Your task to perform on an android device: change notification settings in the gmail app Image 0: 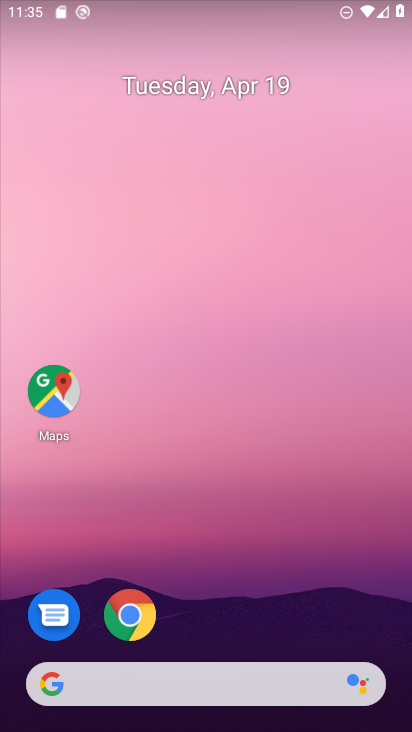
Step 0: drag from (205, 636) to (249, 335)
Your task to perform on an android device: change notification settings in the gmail app Image 1: 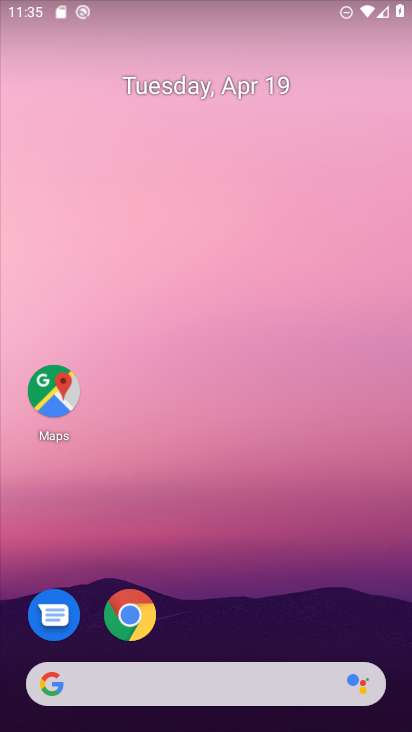
Step 1: drag from (263, 665) to (196, 296)
Your task to perform on an android device: change notification settings in the gmail app Image 2: 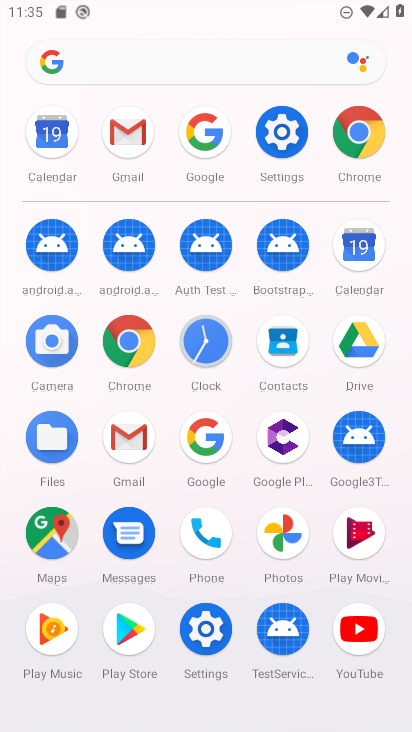
Step 2: click (124, 147)
Your task to perform on an android device: change notification settings in the gmail app Image 3: 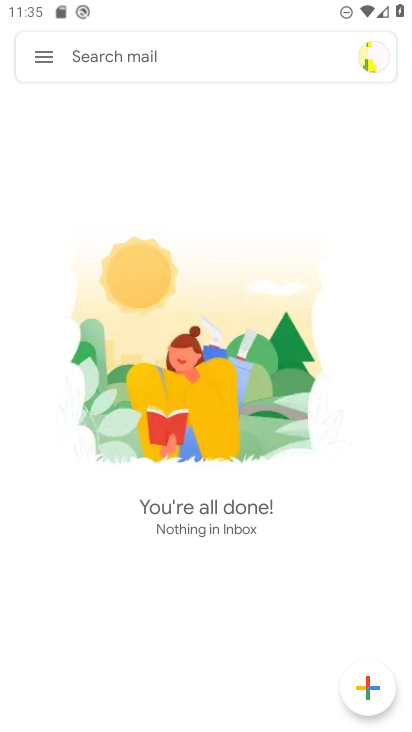
Step 3: click (43, 58)
Your task to perform on an android device: change notification settings in the gmail app Image 4: 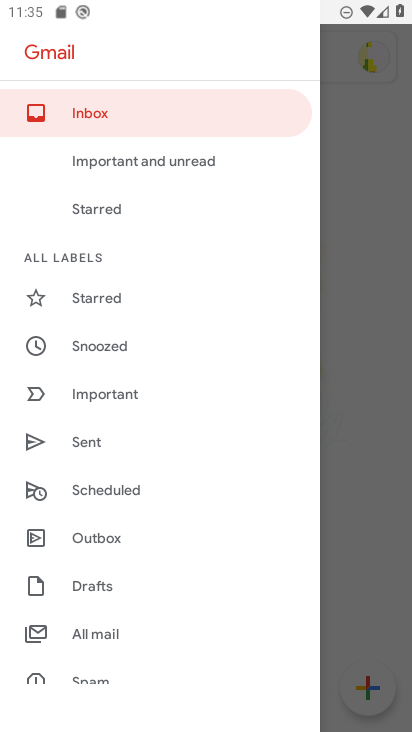
Step 4: drag from (124, 524) to (129, 344)
Your task to perform on an android device: change notification settings in the gmail app Image 5: 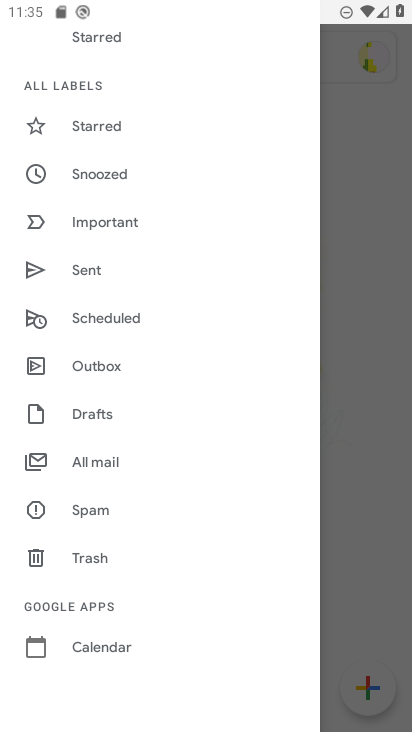
Step 5: drag from (139, 668) to (136, 321)
Your task to perform on an android device: change notification settings in the gmail app Image 6: 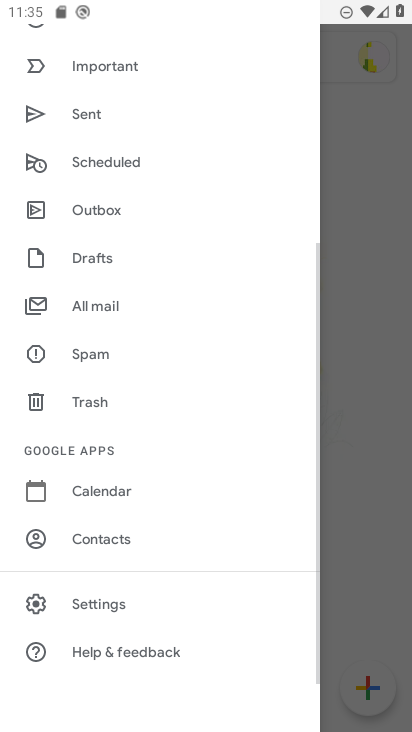
Step 6: click (114, 608)
Your task to perform on an android device: change notification settings in the gmail app Image 7: 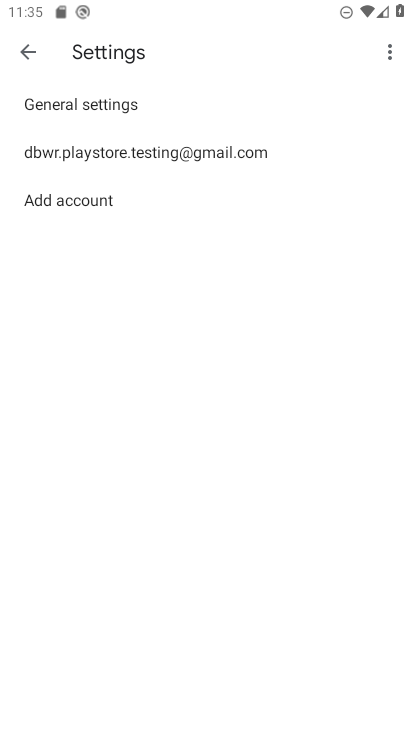
Step 7: click (110, 102)
Your task to perform on an android device: change notification settings in the gmail app Image 8: 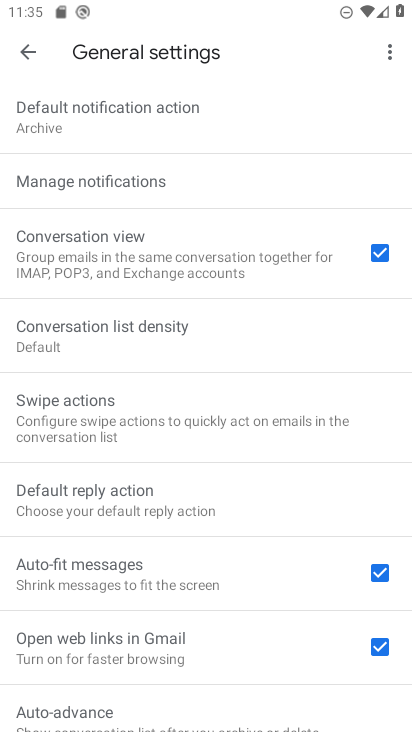
Step 8: click (108, 188)
Your task to perform on an android device: change notification settings in the gmail app Image 9: 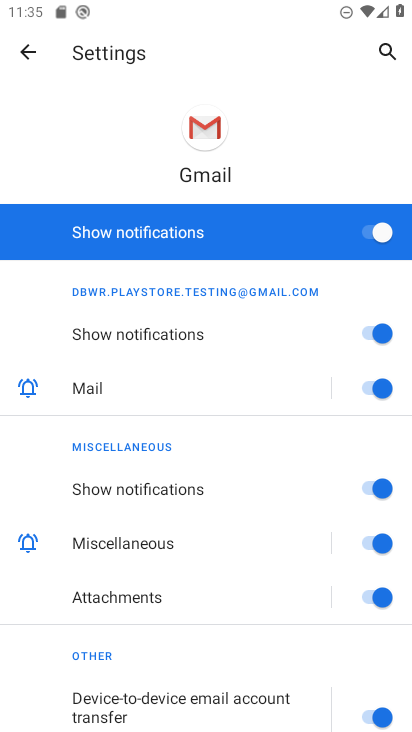
Step 9: click (368, 238)
Your task to perform on an android device: change notification settings in the gmail app Image 10: 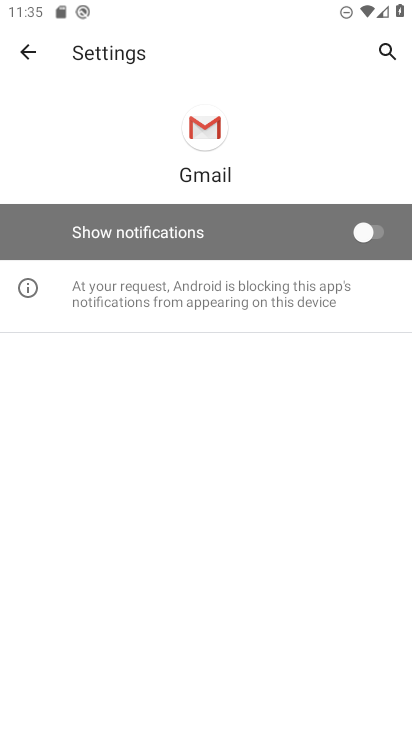
Step 10: task complete